Your task to perform on an android device: toggle wifi Image 0: 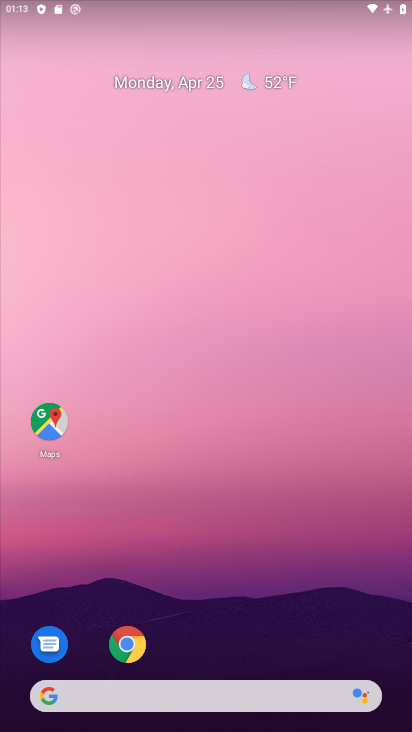
Step 0: drag from (242, 658) to (201, 168)
Your task to perform on an android device: toggle wifi Image 1: 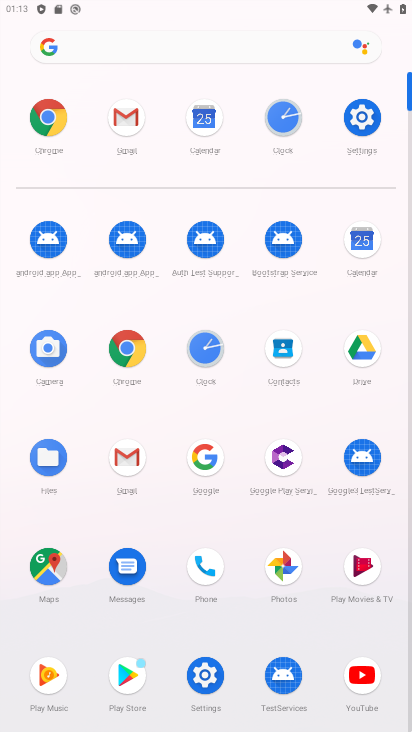
Step 1: click (344, 135)
Your task to perform on an android device: toggle wifi Image 2: 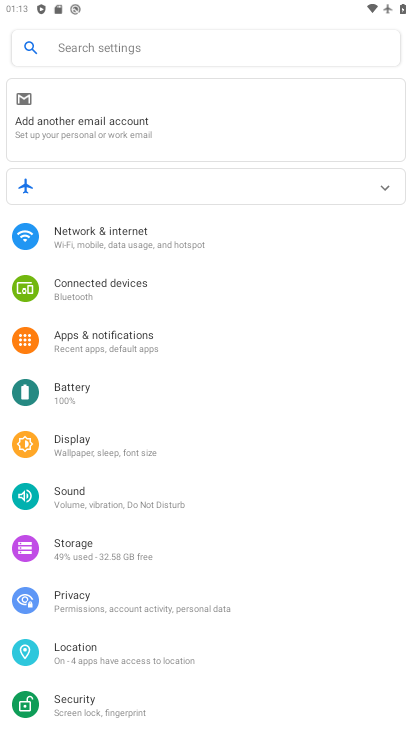
Step 2: click (187, 244)
Your task to perform on an android device: toggle wifi Image 3: 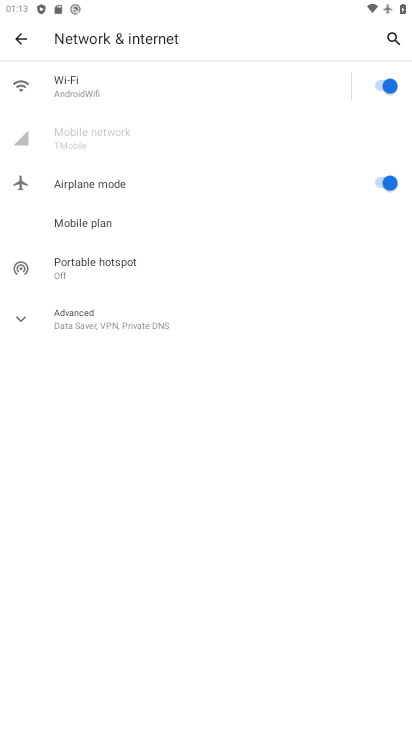
Step 3: click (387, 78)
Your task to perform on an android device: toggle wifi Image 4: 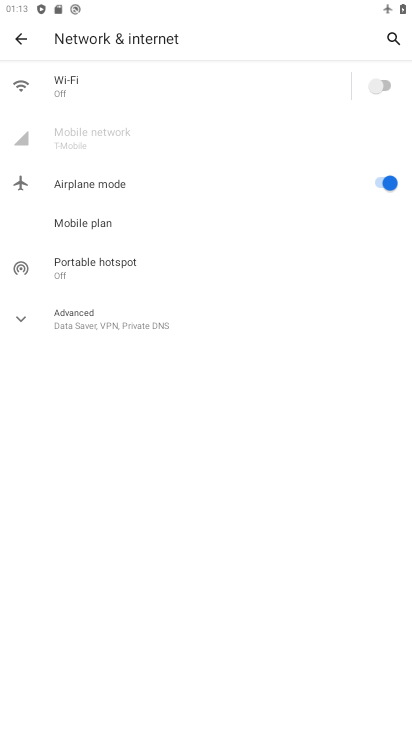
Step 4: task complete